Your task to perform on an android device: turn on javascript in the chrome app Image 0: 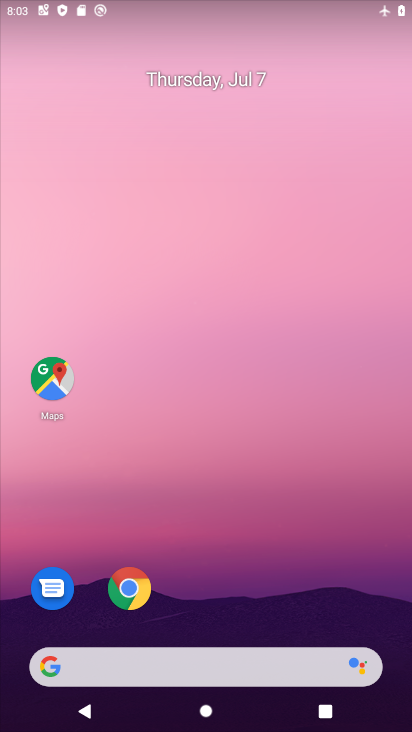
Step 0: drag from (348, 569) to (318, 88)
Your task to perform on an android device: turn on javascript in the chrome app Image 1: 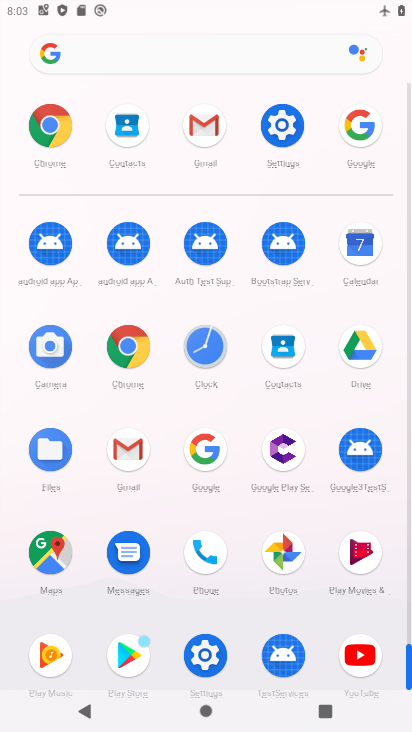
Step 1: click (44, 124)
Your task to perform on an android device: turn on javascript in the chrome app Image 2: 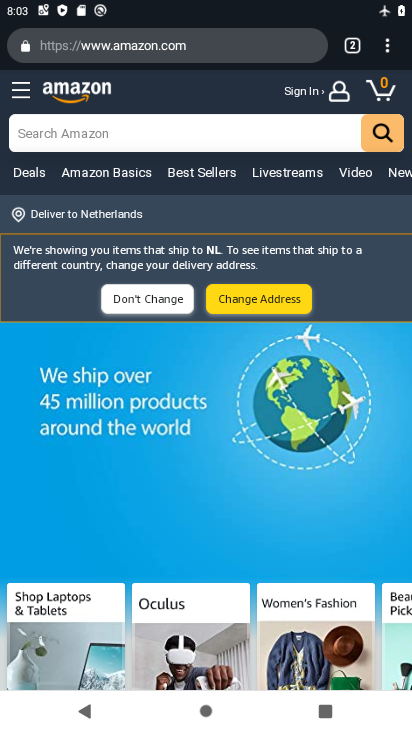
Step 2: click (391, 41)
Your task to perform on an android device: turn on javascript in the chrome app Image 3: 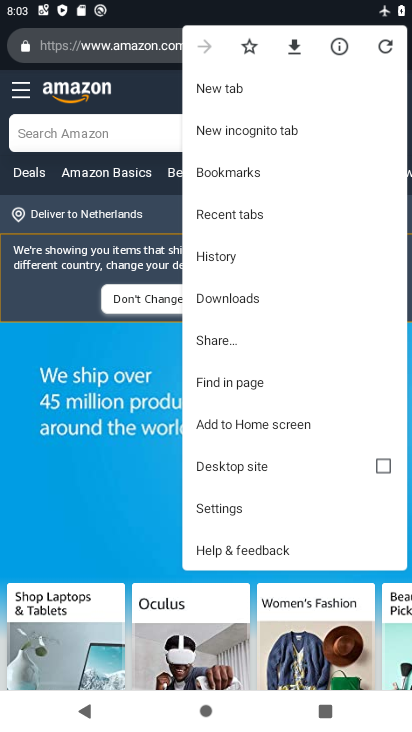
Step 3: click (245, 512)
Your task to perform on an android device: turn on javascript in the chrome app Image 4: 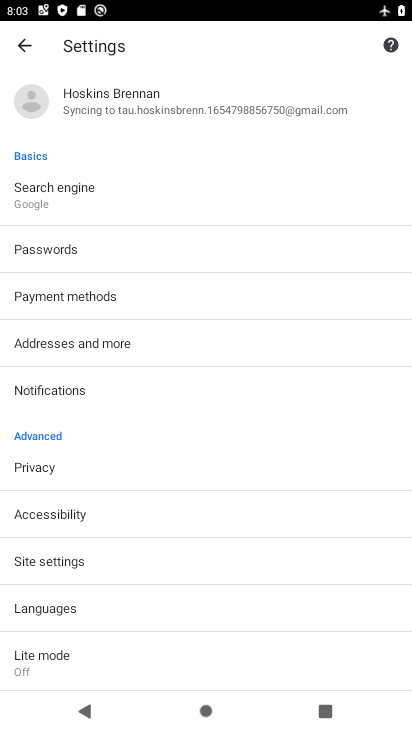
Step 4: click (72, 561)
Your task to perform on an android device: turn on javascript in the chrome app Image 5: 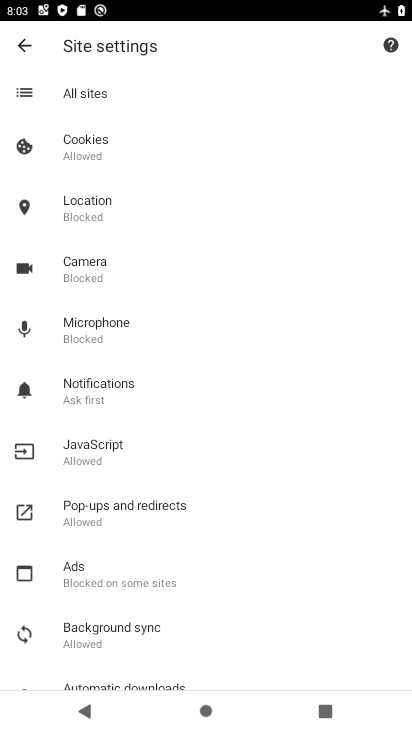
Step 5: click (150, 455)
Your task to perform on an android device: turn on javascript in the chrome app Image 6: 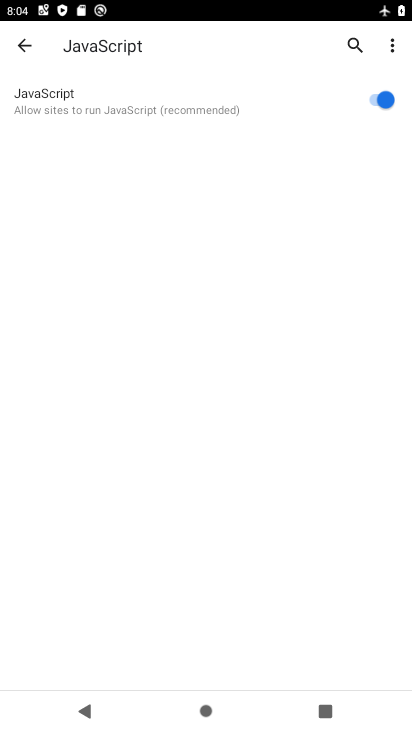
Step 6: task complete